Your task to perform on an android device: toggle notifications settings in the gmail app Image 0: 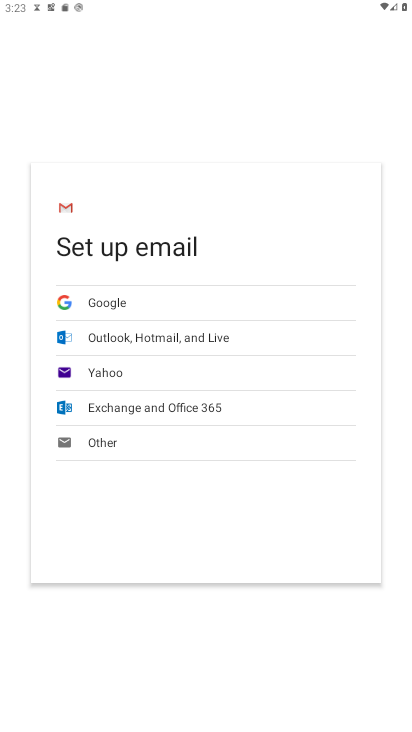
Step 0: press home button
Your task to perform on an android device: toggle notifications settings in the gmail app Image 1: 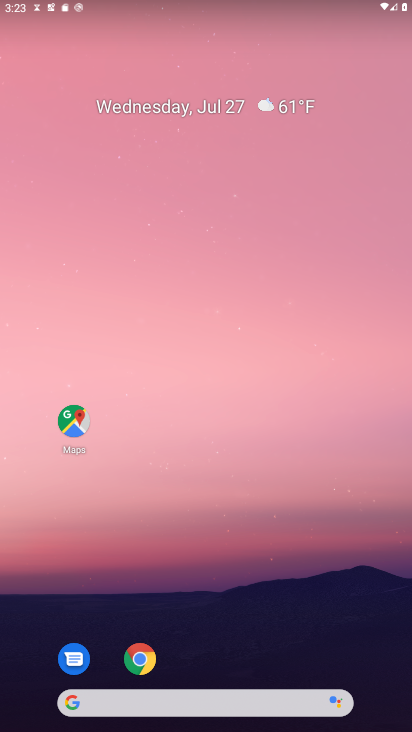
Step 1: drag from (189, 701) to (1, 439)
Your task to perform on an android device: toggle notifications settings in the gmail app Image 2: 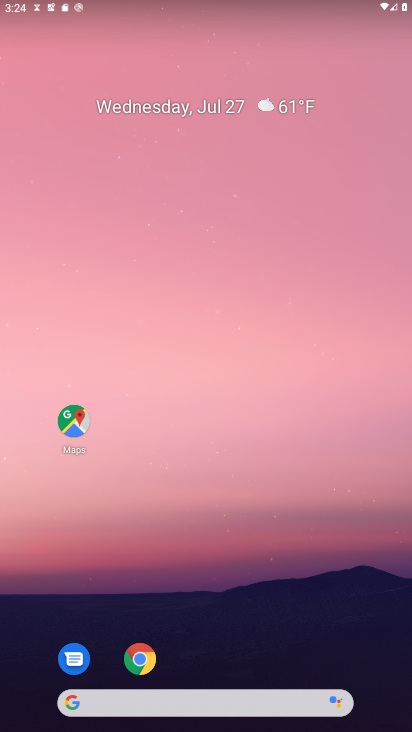
Step 2: click (135, 408)
Your task to perform on an android device: toggle notifications settings in the gmail app Image 3: 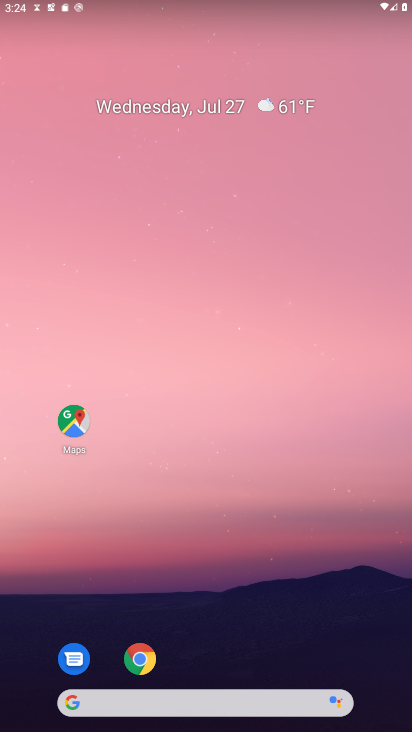
Step 3: click (234, 685)
Your task to perform on an android device: toggle notifications settings in the gmail app Image 4: 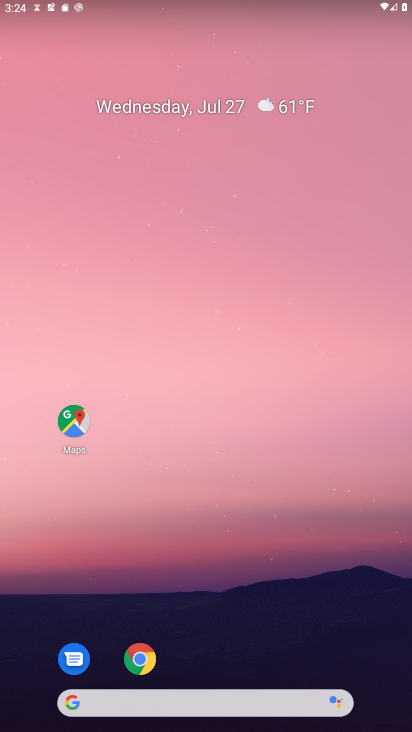
Step 4: drag from (211, 693) to (249, 103)
Your task to perform on an android device: toggle notifications settings in the gmail app Image 5: 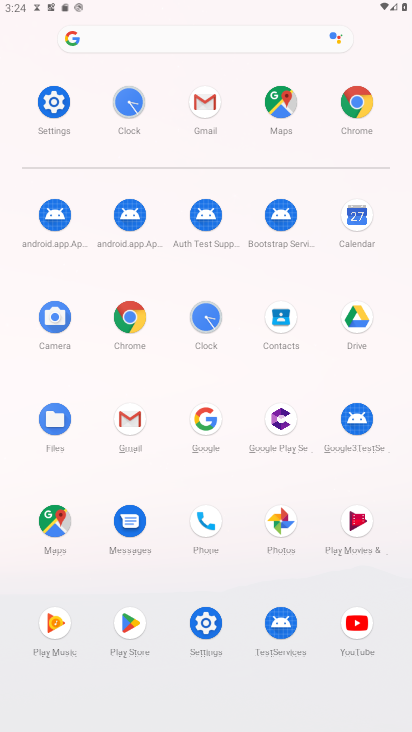
Step 5: click (125, 434)
Your task to perform on an android device: toggle notifications settings in the gmail app Image 6: 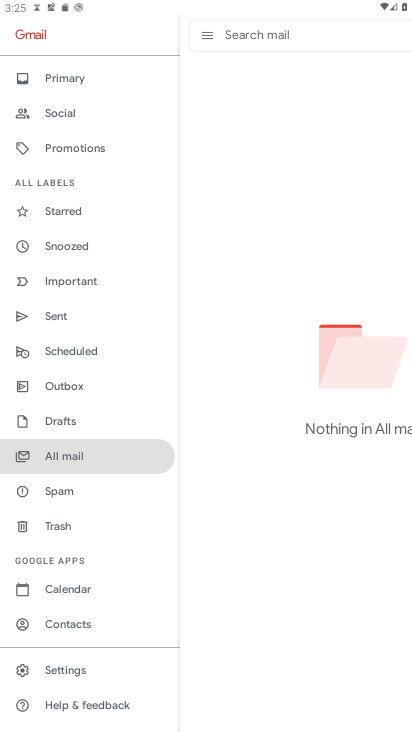
Step 6: click (62, 677)
Your task to perform on an android device: toggle notifications settings in the gmail app Image 7: 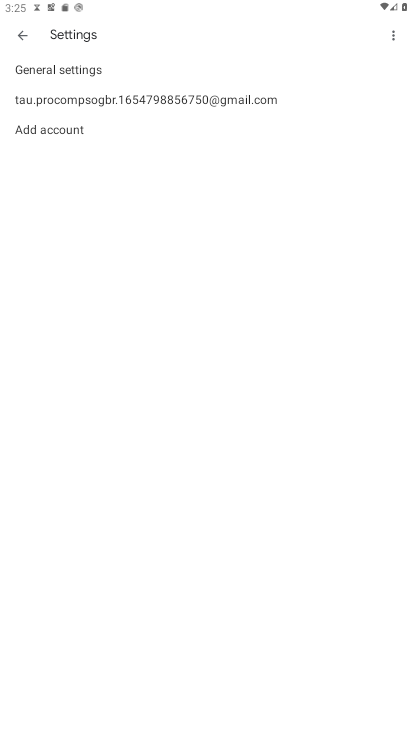
Step 7: click (120, 103)
Your task to perform on an android device: toggle notifications settings in the gmail app Image 8: 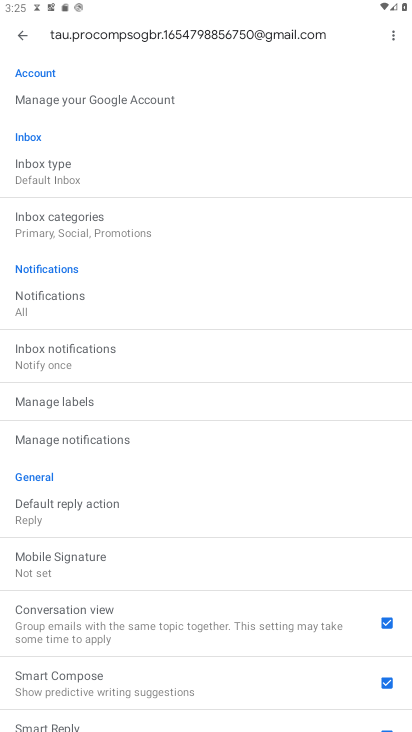
Step 8: click (101, 444)
Your task to perform on an android device: toggle notifications settings in the gmail app Image 9: 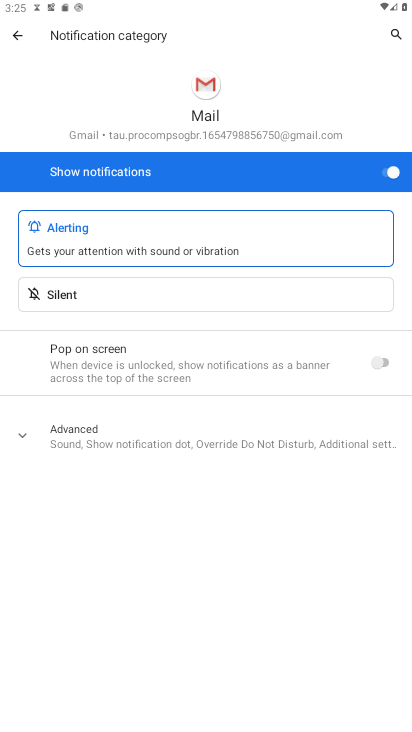
Step 9: click (392, 172)
Your task to perform on an android device: toggle notifications settings in the gmail app Image 10: 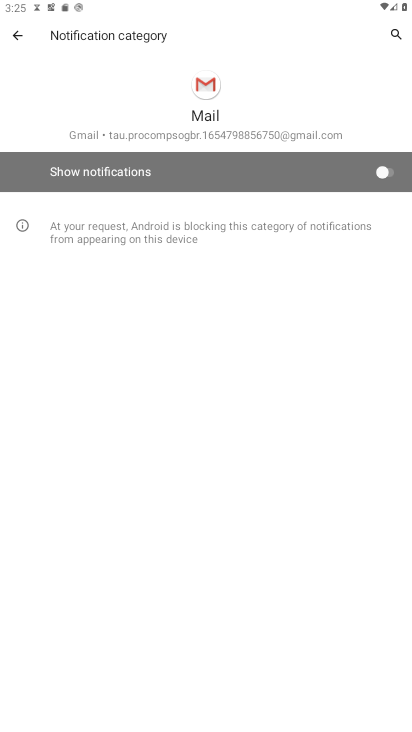
Step 10: task complete